Your task to perform on an android device: Empty the shopping cart on costco. Search for logitech g933 on costco, select the first entry, add it to the cart, then select checkout. Image 0: 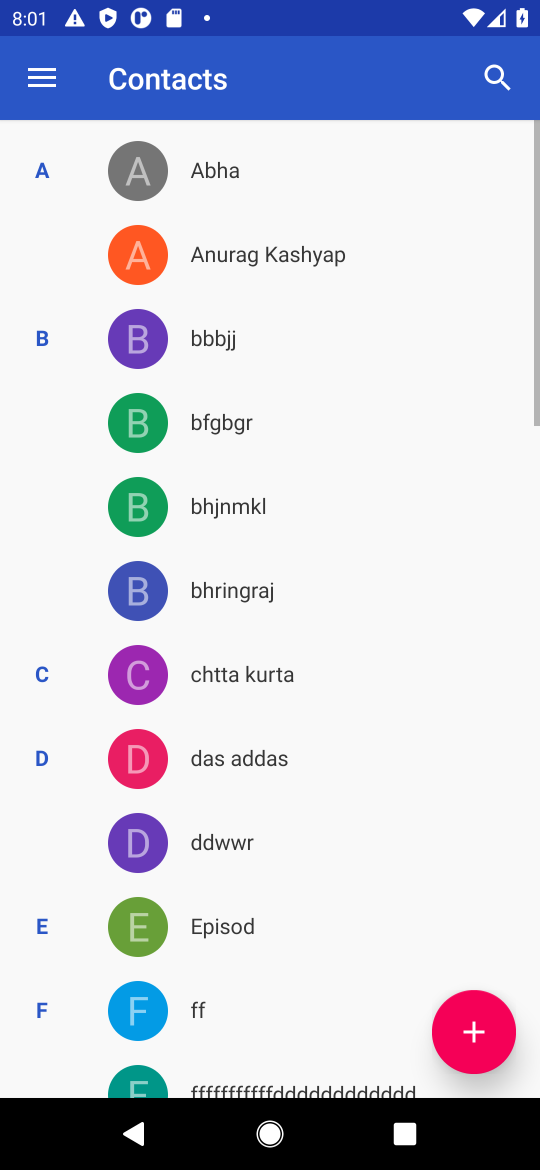
Step 0: click (264, 1032)
Your task to perform on an android device: Empty the shopping cart on costco. Search for logitech g933 on costco, select the first entry, add it to the cart, then select checkout. Image 1: 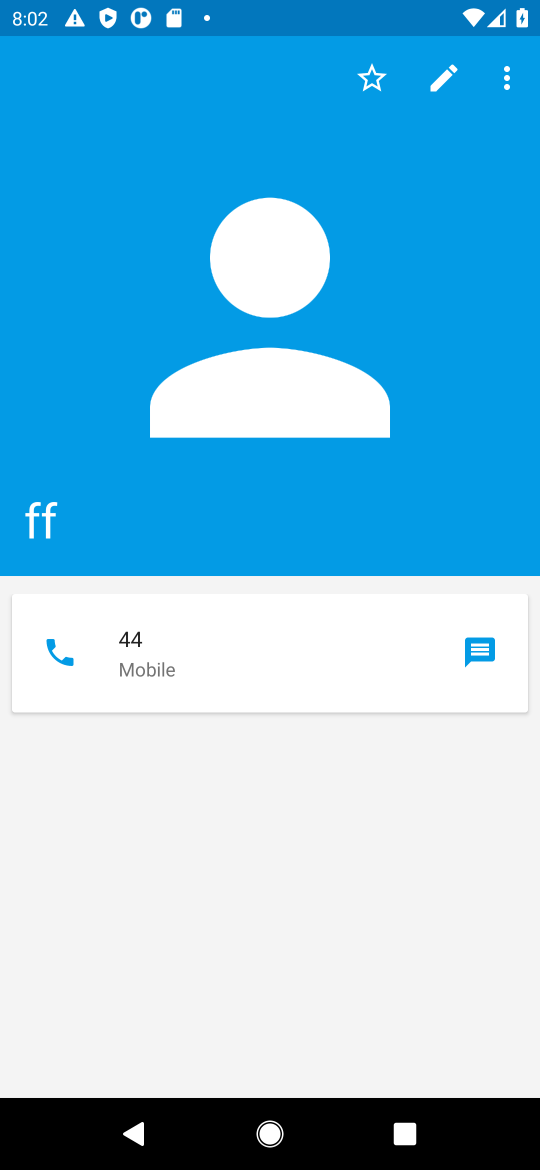
Step 1: press home button
Your task to perform on an android device: Empty the shopping cart on costco. Search for logitech g933 on costco, select the first entry, add it to the cart, then select checkout. Image 2: 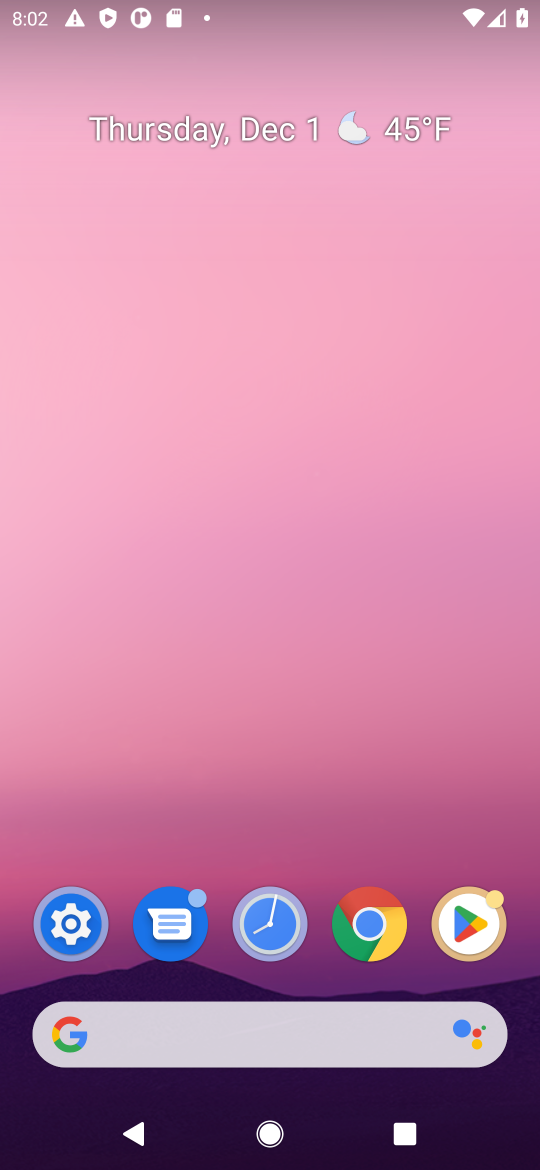
Step 2: click (217, 1023)
Your task to perform on an android device: Empty the shopping cart on costco. Search for logitech g933 on costco, select the first entry, add it to the cart, then select checkout. Image 3: 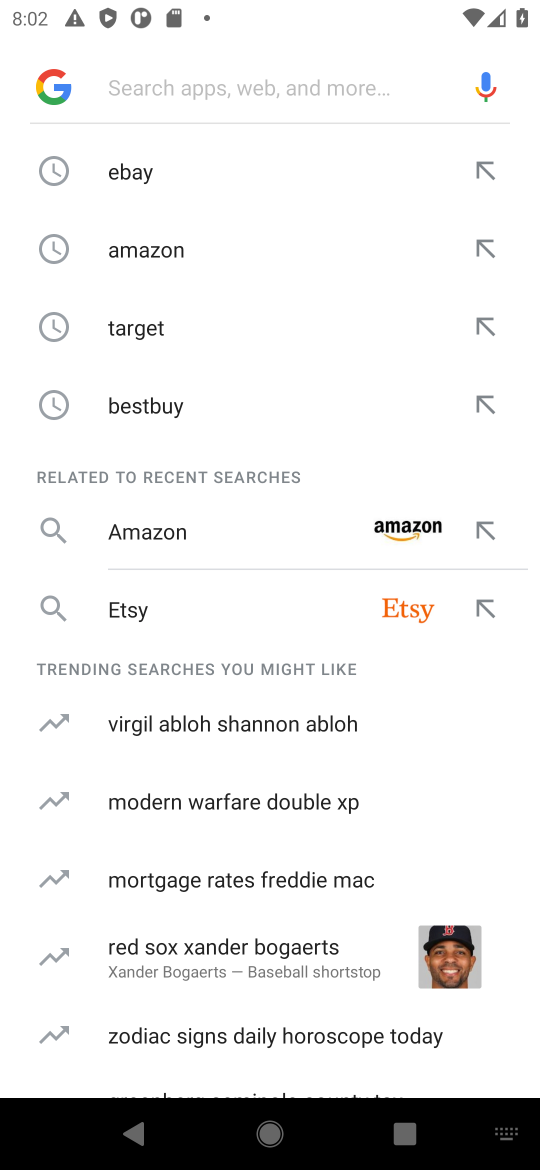
Step 3: type "costco.com"
Your task to perform on an android device: Empty the shopping cart on costco. Search for logitech g933 on costco, select the first entry, add it to the cart, then select checkout. Image 4: 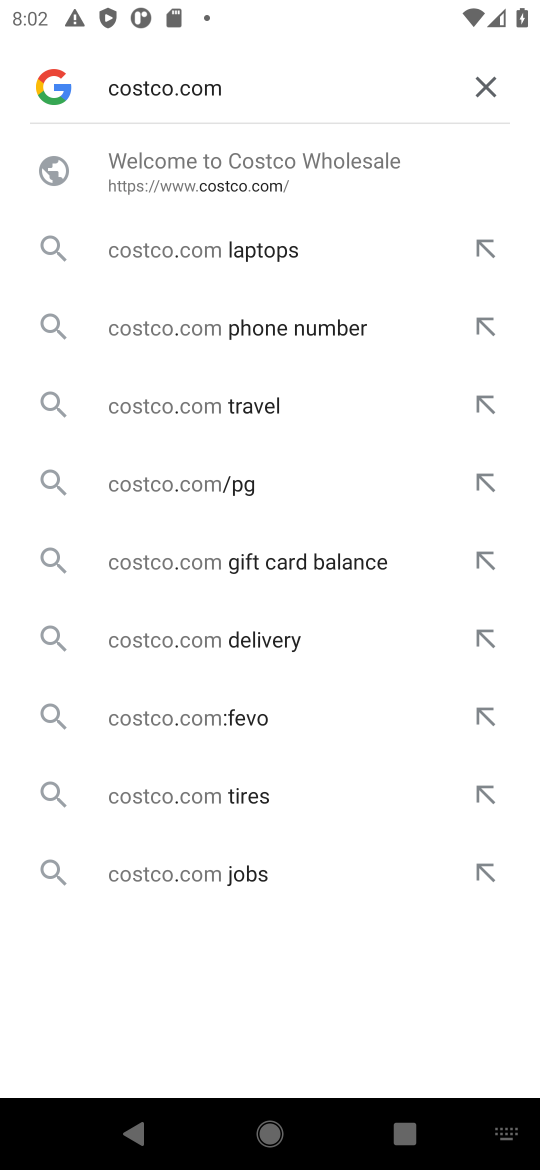
Step 4: click (197, 184)
Your task to perform on an android device: Empty the shopping cart on costco. Search for logitech g933 on costco, select the first entry, add it to the cart, then select checkout. Image 5: 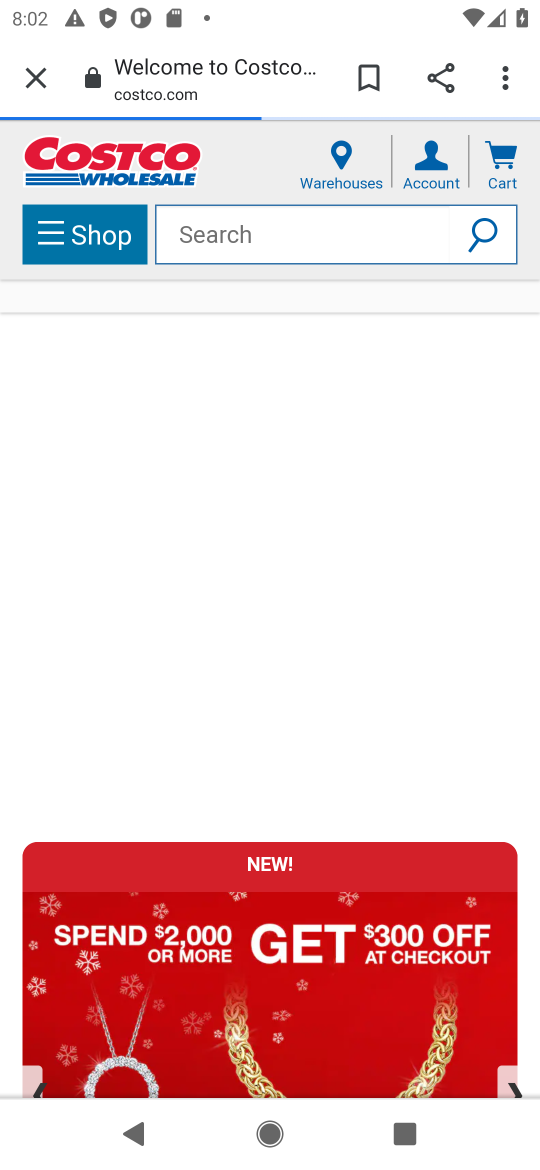
Step 5: click (242, 240)
Your task to perform on an android device: Empty the shopping cart on costco. Search for logitech g933 on costco, select the first entry, add it to the cart, then select checkout. Image 6: 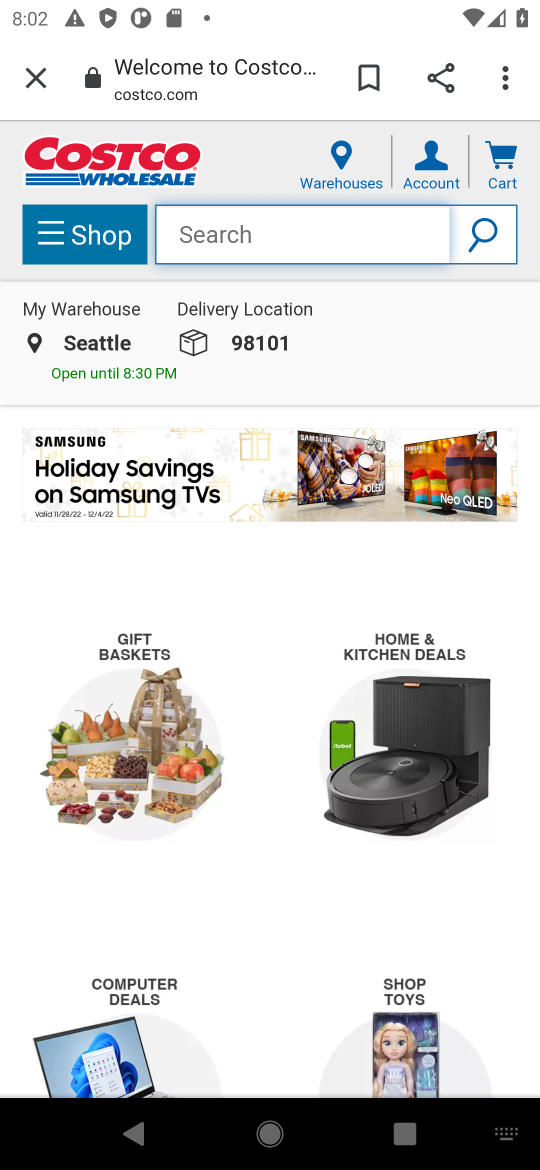
Step 6: type "logitech g933"
Your task to perform on an android device: Empty the shopping cart on costco. Search for logitech g933 on costco, select the first entry, add it to the cart, then select checkout. Image 7: 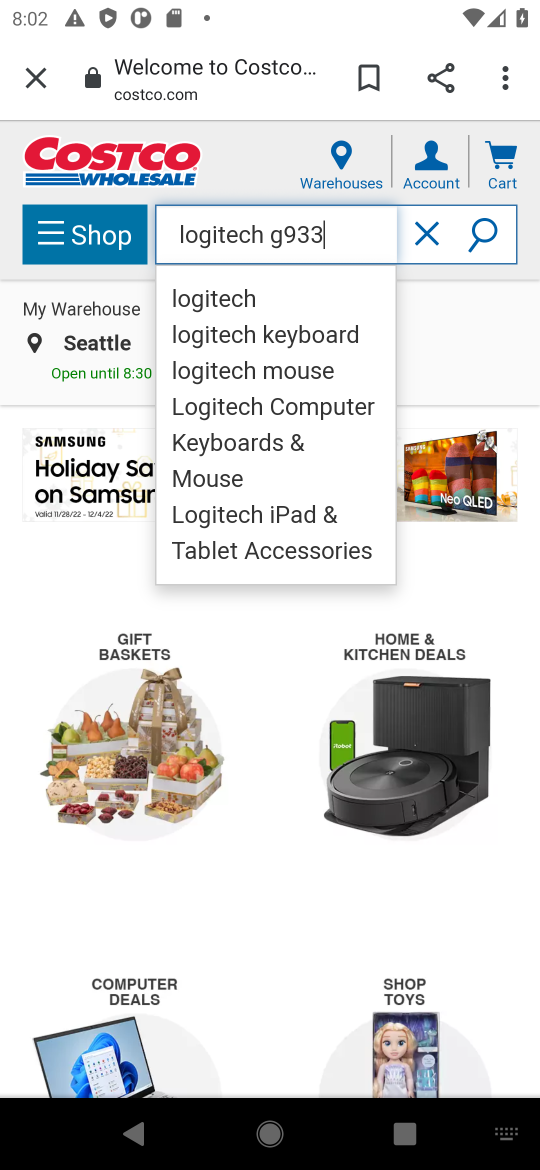
Step 7: click (474, 246)
Your task to perform on an android device: Empty the shopping cart on costco. Search for logitech g933 on costco, select the first entry, add it to the cart, then select checkout. Image 8: 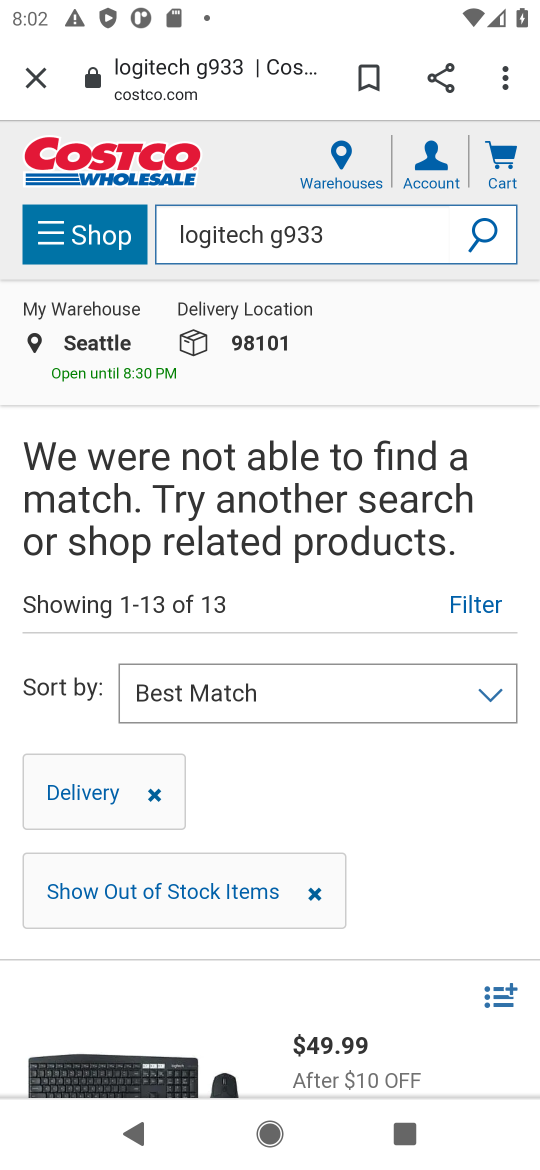
Step 8: drag from (393, 984) to (323, 628)
Your task to perform on an android device: Empty the shopping cart on costco. Search for logitech g933 on costco, select the first entry, add it to the cart, then select checkout. Image 9: 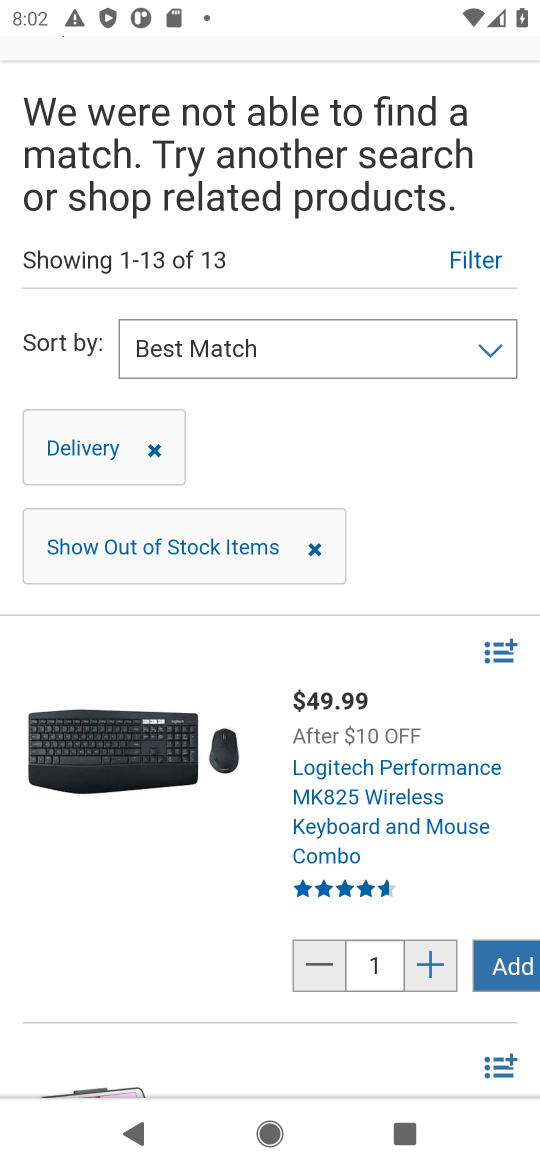
Step 9: click (511, 984)
Your task to perform on an android device: Empty the shopping cart on costco. Search for logitech g933 on costco, select the first entry, add it to the cart, then select checkout. Image 10: 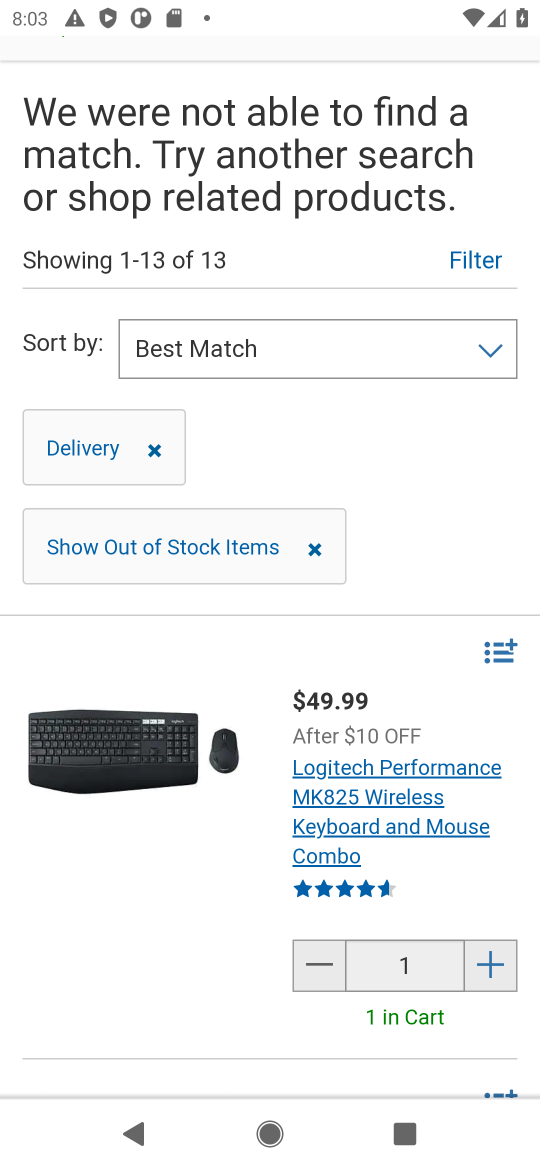
Step 10: task complete